Your task to perform on an android device: turn on sleep mode Image 0: 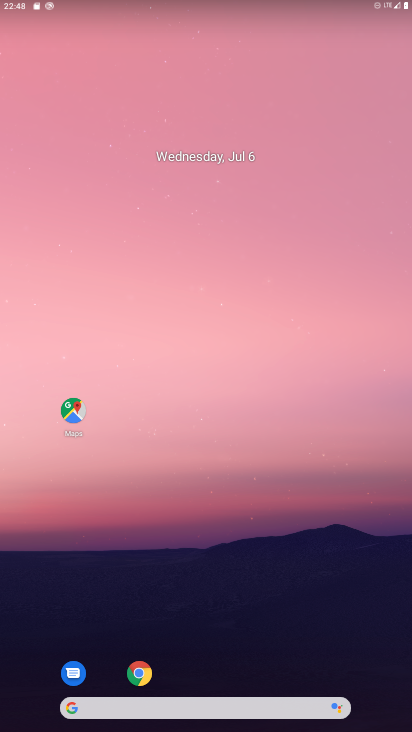
Step 0: drag from (206, 11) to (217, 594)
Your task to perform on an android device: turn on sleep mode Image 1: 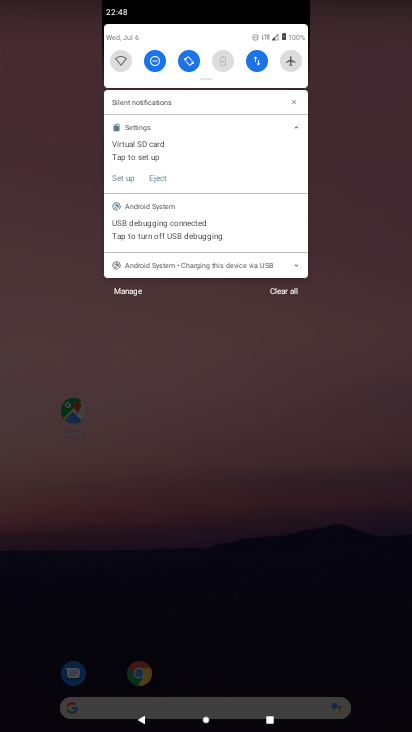
Step 1: drag from (200, 45) to (233, 555)
Your task to perform on an android device: turn on sleep mode Image 2: 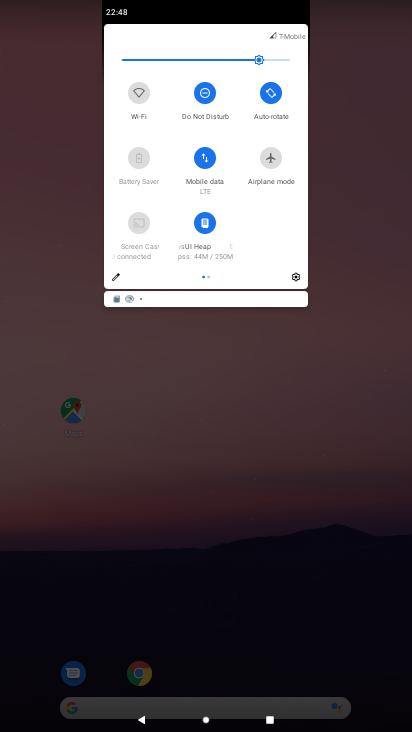
Step 2: click (293, 282)
Your task to perform on an android device: turn on sleep mode Image 3: 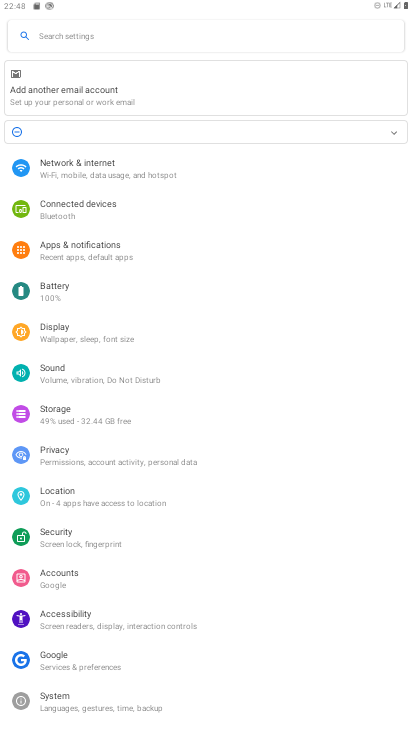
Step 3: task complete